Your task to perform on an android device: turn on the 24-hour format for clock Image 0: 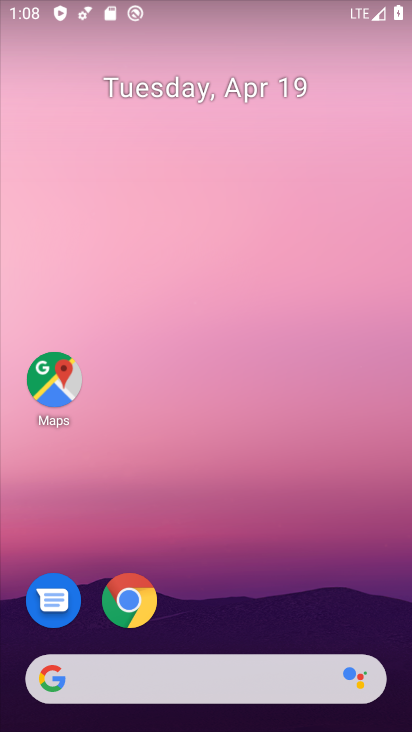
Step 0: drag from (204, 637) to (126, 4)
Your task to perform on an android device: turn on the 24-hour format for clock Image 1: 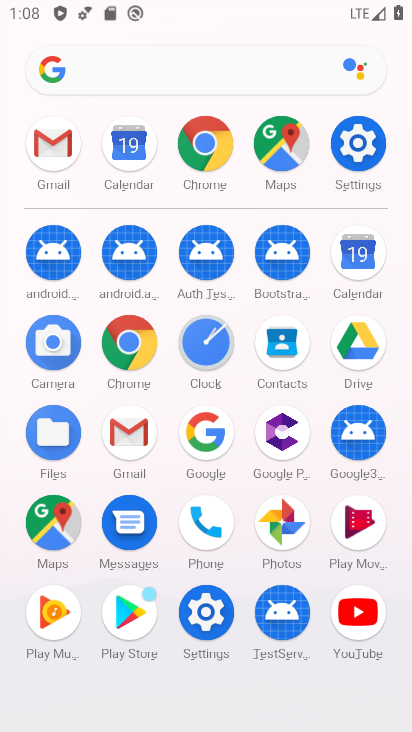
Step 1: click (205, 348)
Your task to perform on an android device: turn on the 24-hour format for clock Image 2: 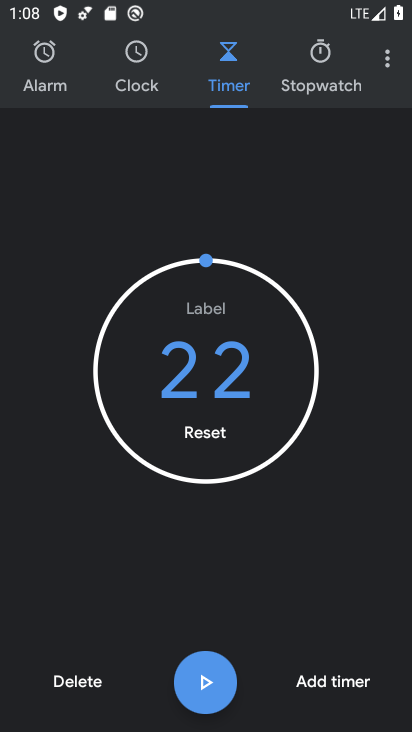
Step 2: click (386, 59)
Your task to perform on an android device: turn on the 24-hour format for clock Image 3: 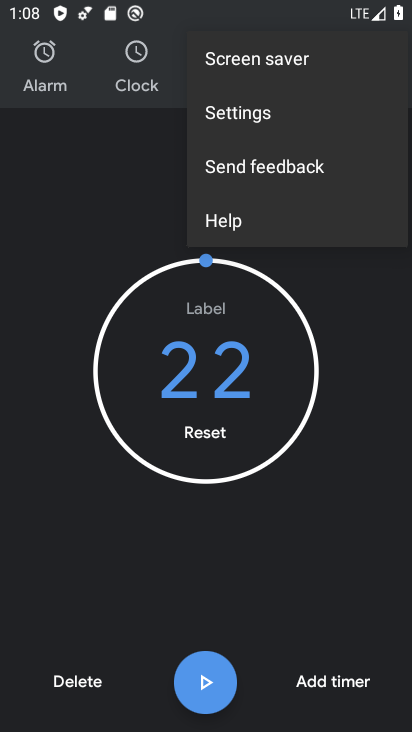
Step 3: click (250, 123)
Your task to perform on an android device: turn on the 24-hour format for clock Image 4: 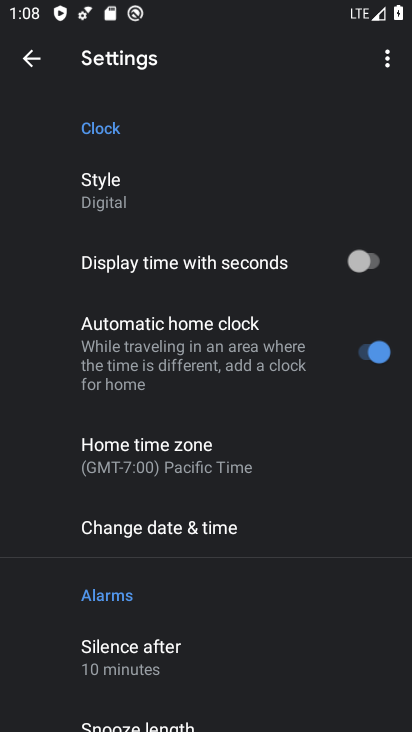
Step 4: click (201, 527)
Your task to perform on an android device: turn on the 24-hour format for clock Image 5: 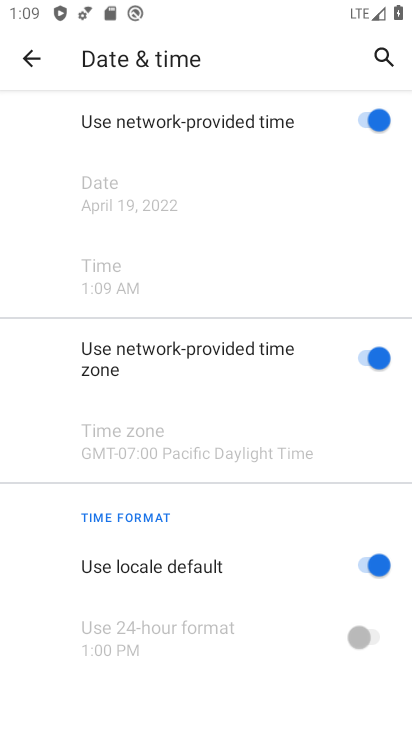
Step 5: click (382, 559)
Your task to perform on an android device: turn on the 24-hour format for clock Image 6: 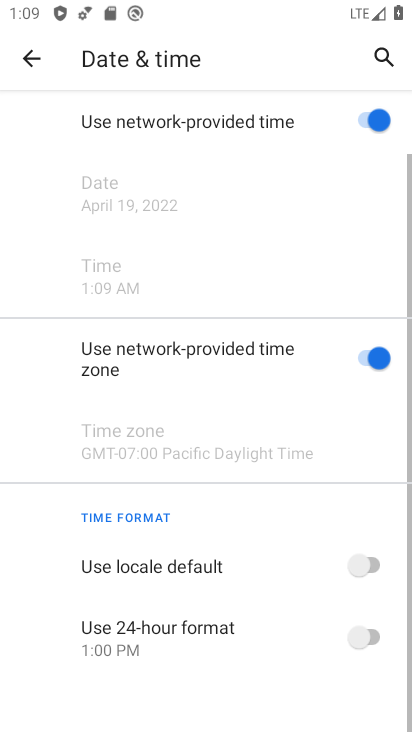
Step 6: click (371, 634)
Your task to perform on an android device: turn on the 24-hour format for clock Image 7: 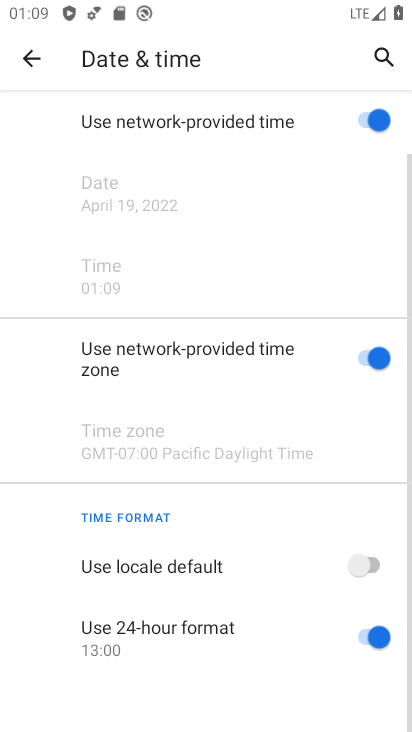
Step 7: task complete